Your task to perform on an android device: turn on location history Image 0: 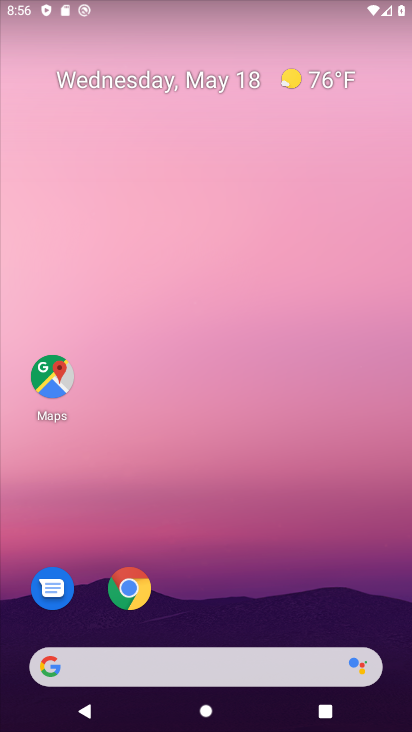
Step 0: drag from (253, 617) to (248, 137)
Your task to perform on an android device: turn on location history Image 1: 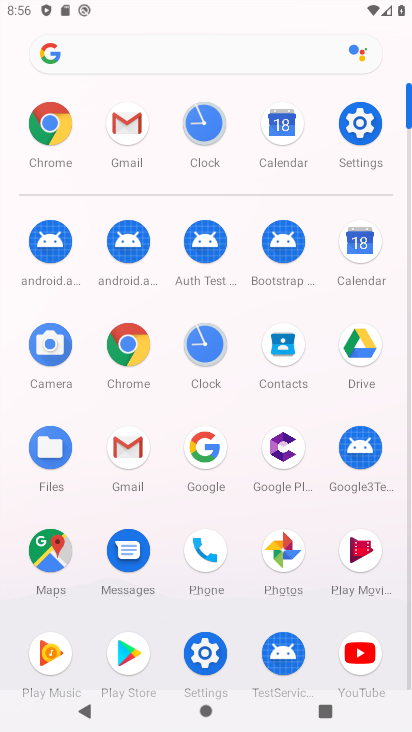
Step 1: click (369, 129)
Your task to perform on an android device: turn on location history Image 2: 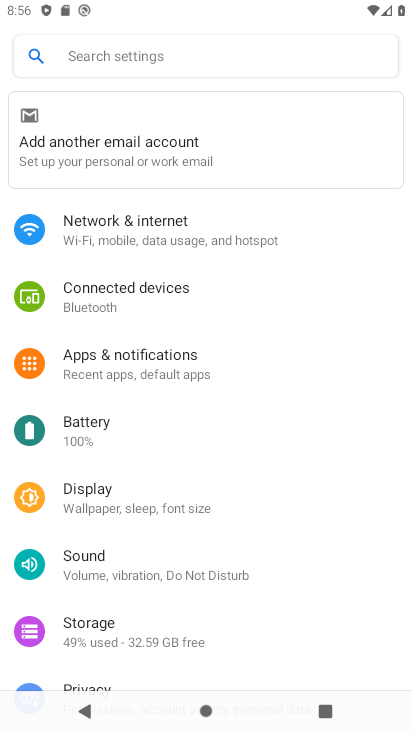
Step 2: drag from (214, 559) to (247, 319)
Your task to perform on an android device: turn on location history Image 3: 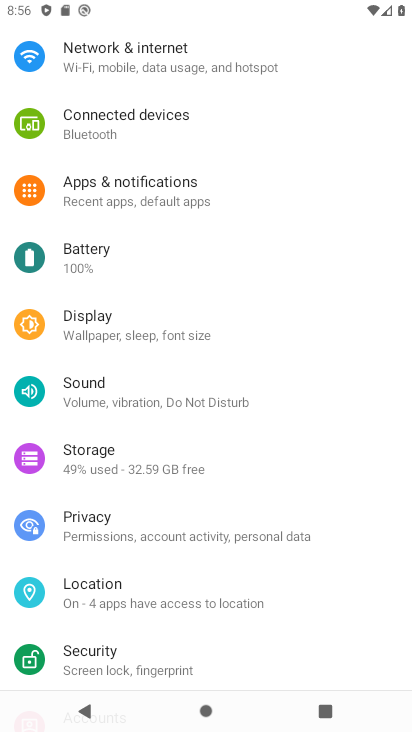
Step 3: click (157, 605)
Your task to perform on an android device: turn on location history Image 4: 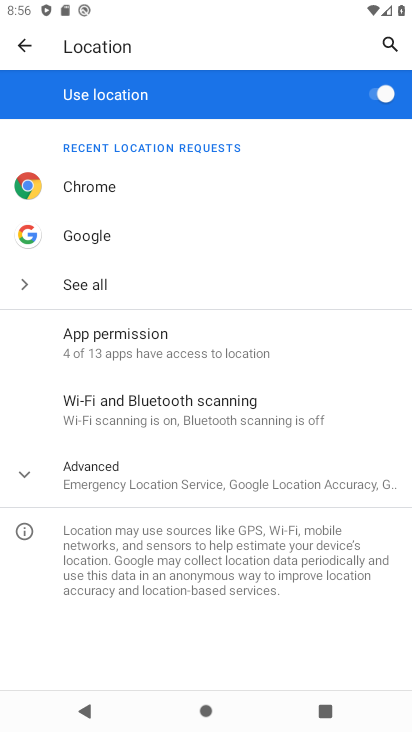
Step 4: click (132, 471)
Your task to perform on an android device: turn on location history Image 5: 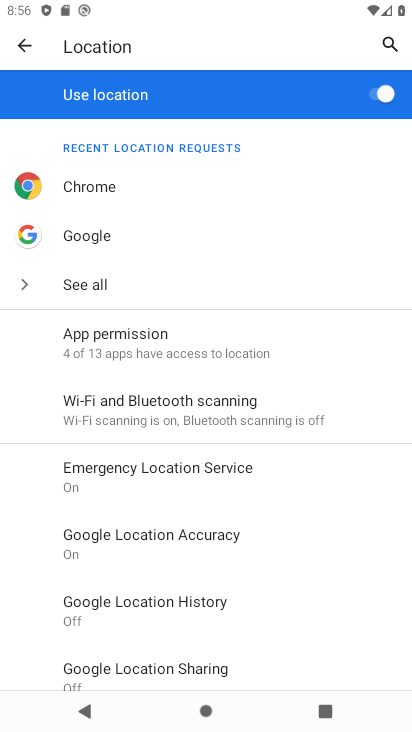
Step 5: click (190, 608)
Your task to perform on an android device: turn on location history Image 6: 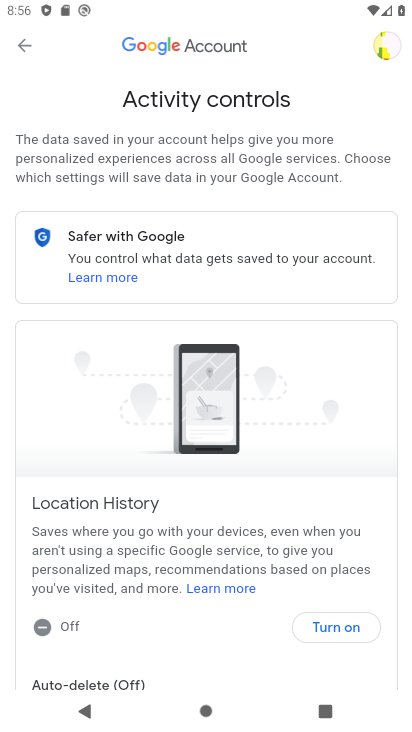
Step 6: task complete